Your task to perform on an android device: toggle priority inbox in the gmail app Image 0: 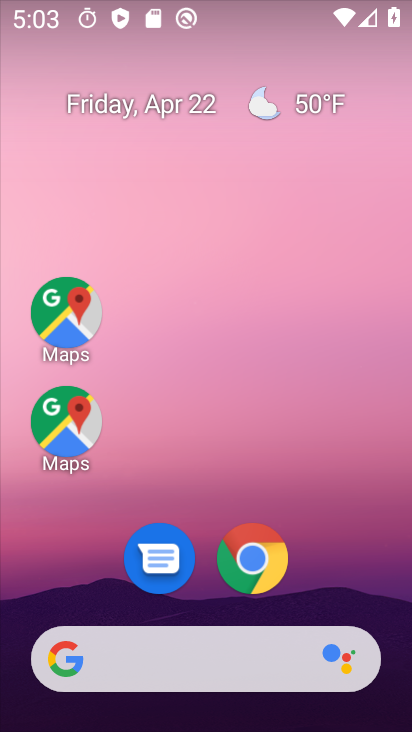
Step 0: drag from (325, 589) to (308, 203)
Your task to perform on an android device: toggle priority inbox in the gmail app Image 1: 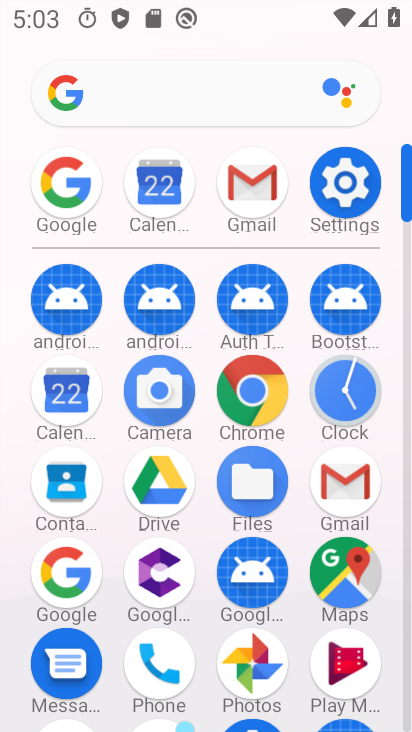
Step 1: click (347, 500)
Your task to perform on an android device: toggle priority inbox in the gmail app Image 2: 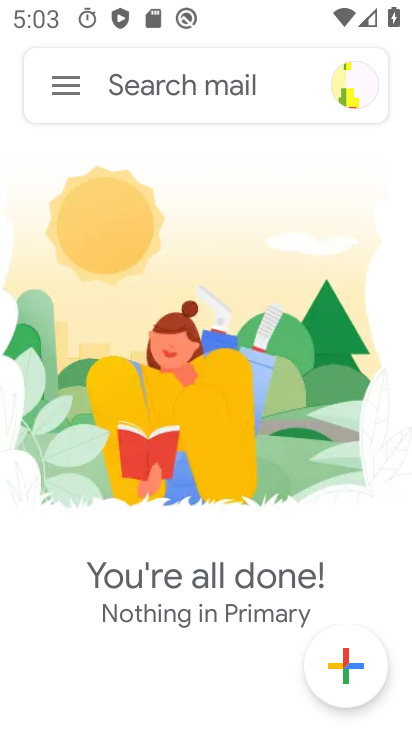
Step 2: click (60, 73)
Your task to perform on an android device: toggle priority inbox in the gmail app Image 3: 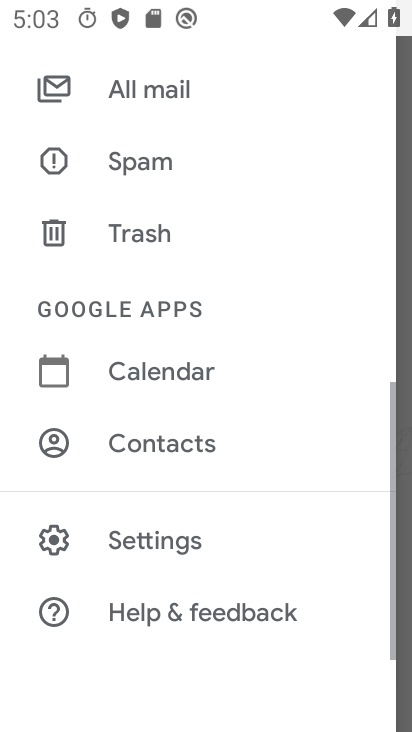
Step 3: click (141, 531)
Your task to perform on an android device: toggle priority inbox in the gmail app Image 4: 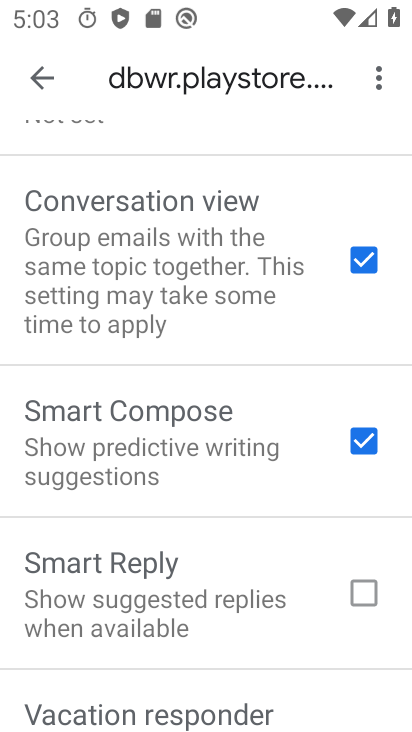
Step 4: drag from (180, 278) to (187, 688)
Your task to perform on an android device: toggle priority inbox in the gmail app Image 5: 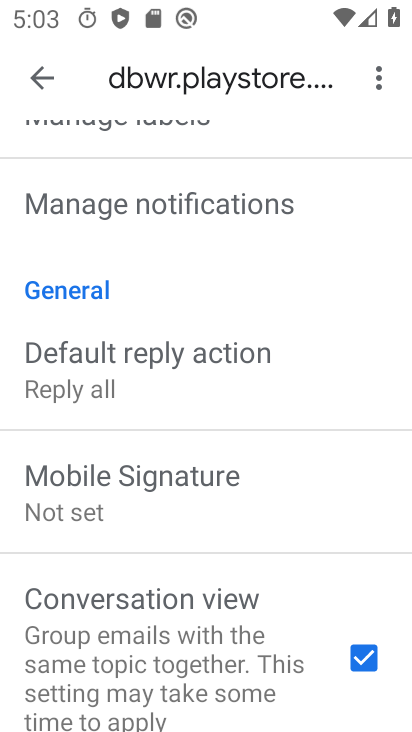
Step 5: drag from (199, 273) to (170, 618)
Your task to perform on an android device: toggle priority inbox in the gmail app Image 6: 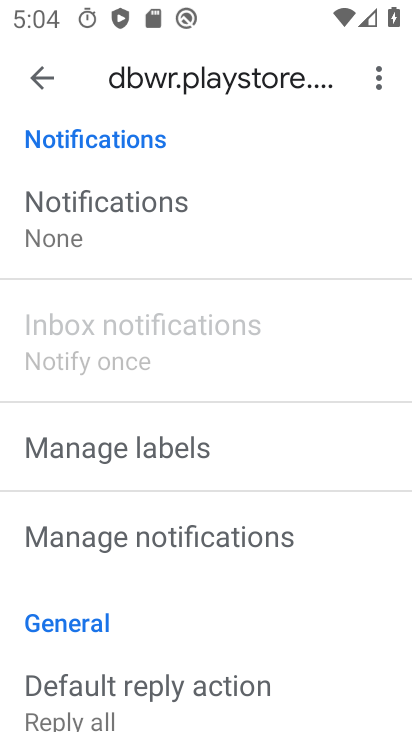
Step 6: drag from (222, 355) to (190, 720)
Your task to perform on an android device: toggle priority inbox in the gmail app Image 7: 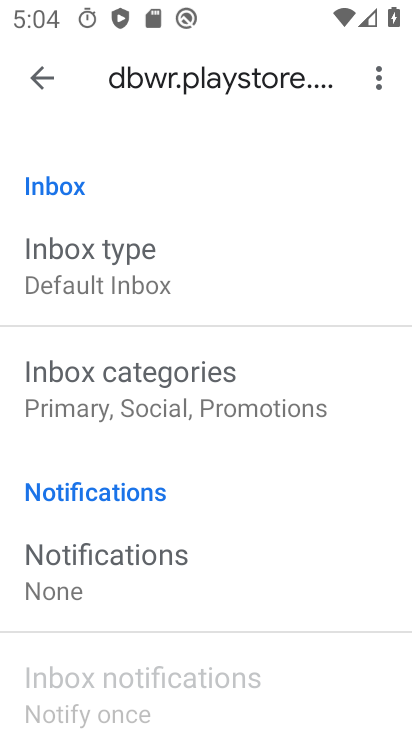
Step 7: drag from (257, 277) to (209, 582)
Your task to perform on an android device: toggle priority inbox in the gmail app Image 8: 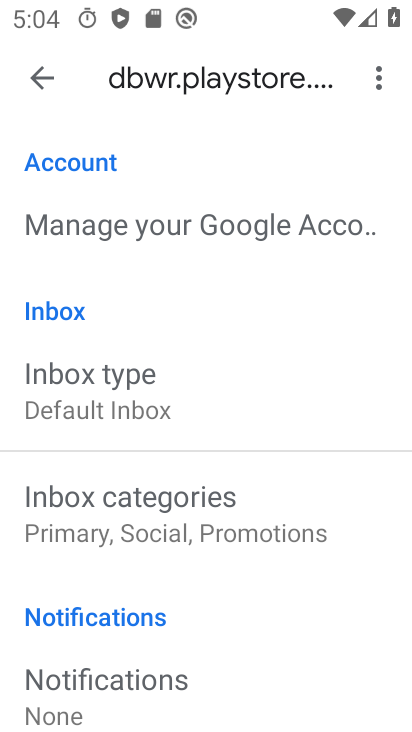
Step 8: click (102, 375)
Your task to perform on an android device: toggle priority inbox in the gmail app Image 9: 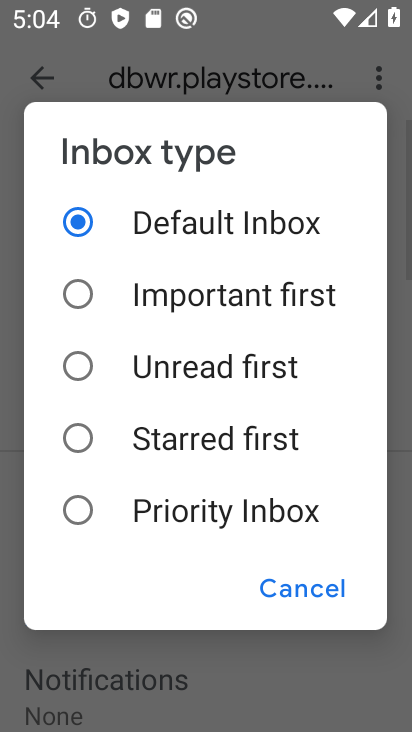
Step 9: click (73, 504)
Your task to perform on an android device: toggle priority inbox in the gmail app Image 10: 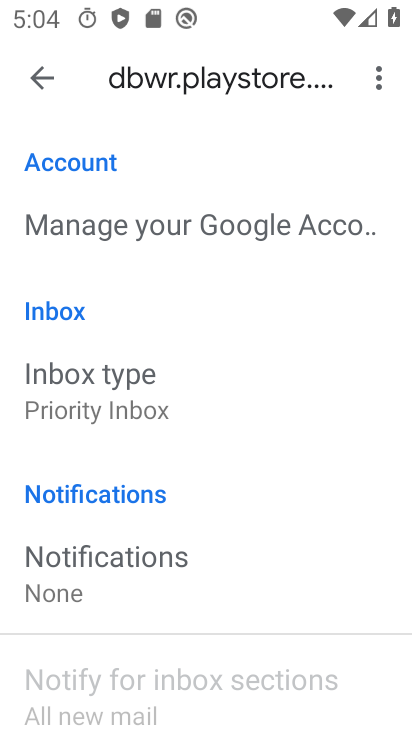
Step 10: task complete